Your task to perform on an android device: Add "dell xps" to the cart on walmart Image 0: 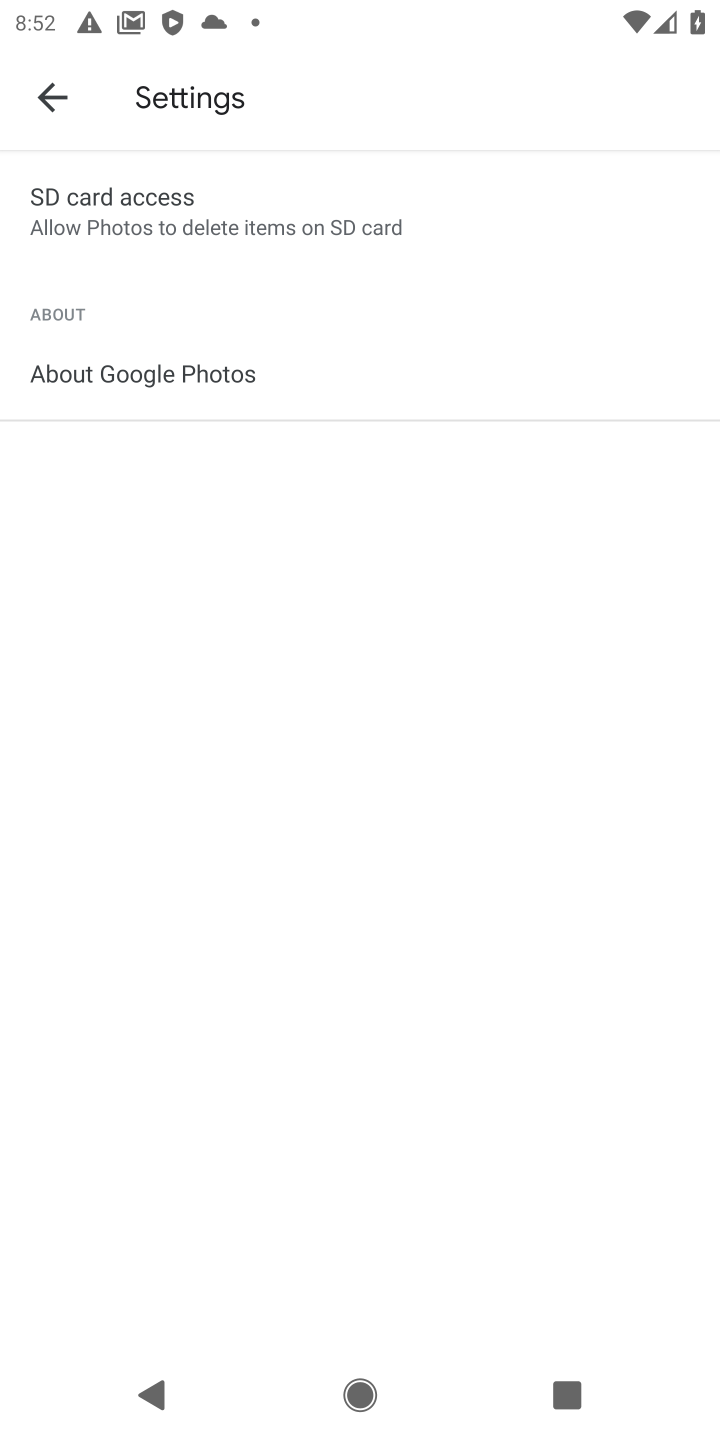
Step 0: press home button
Your task to perform on an android device: Add "dell xps" to the cart on walmart Image 1: 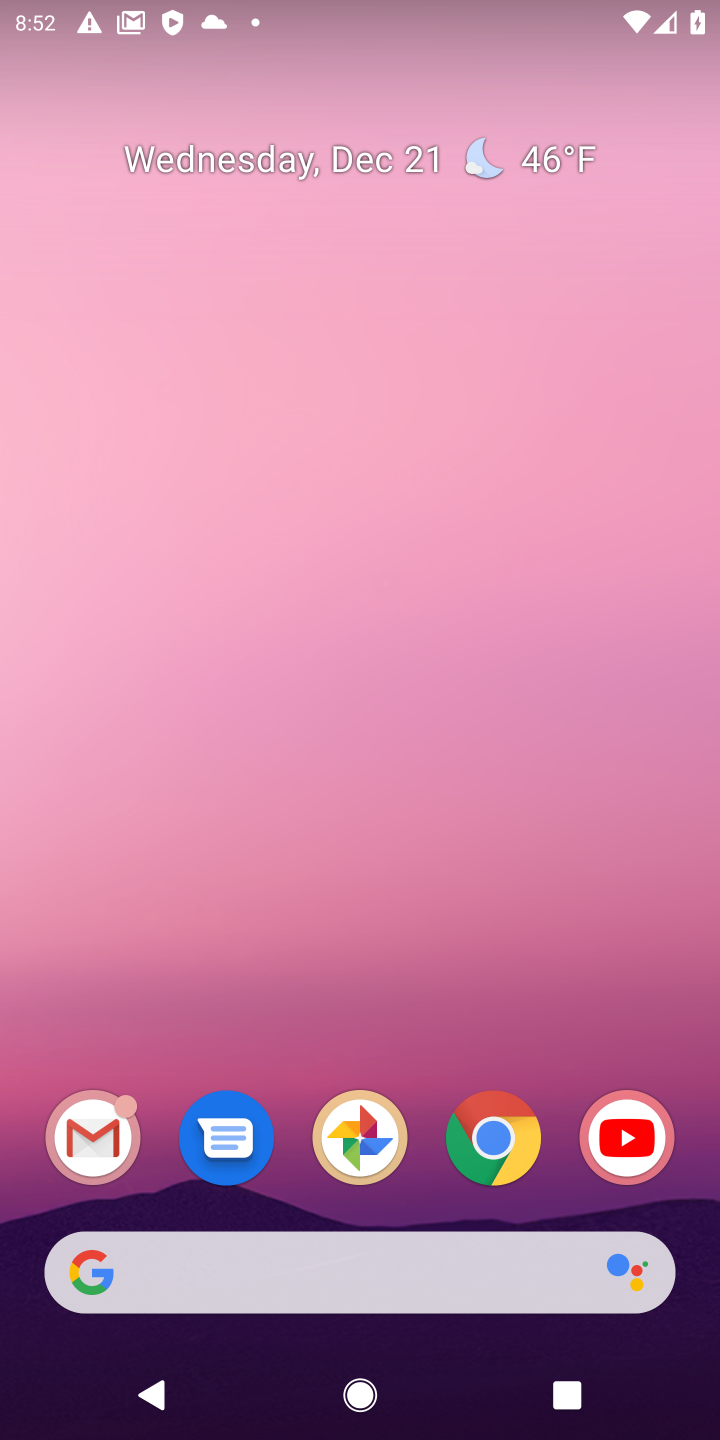
Step 1: click (503, 1151)
Your task to perform on an android device: Add "dell xps" to the cart on walmart Image 2: 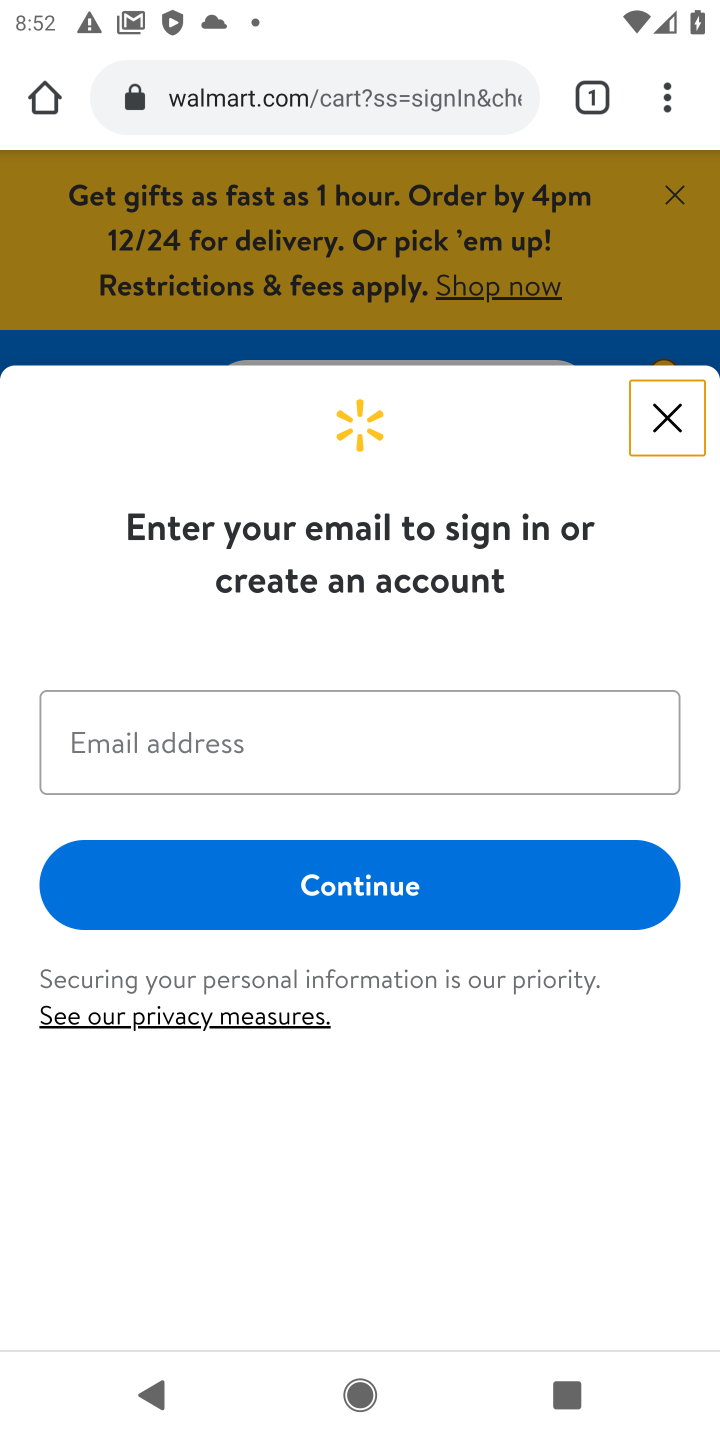
Step 2: click (663, 423)
Your task to perform on an android device: Add "dell xps" to the cart on walmart Image 3: 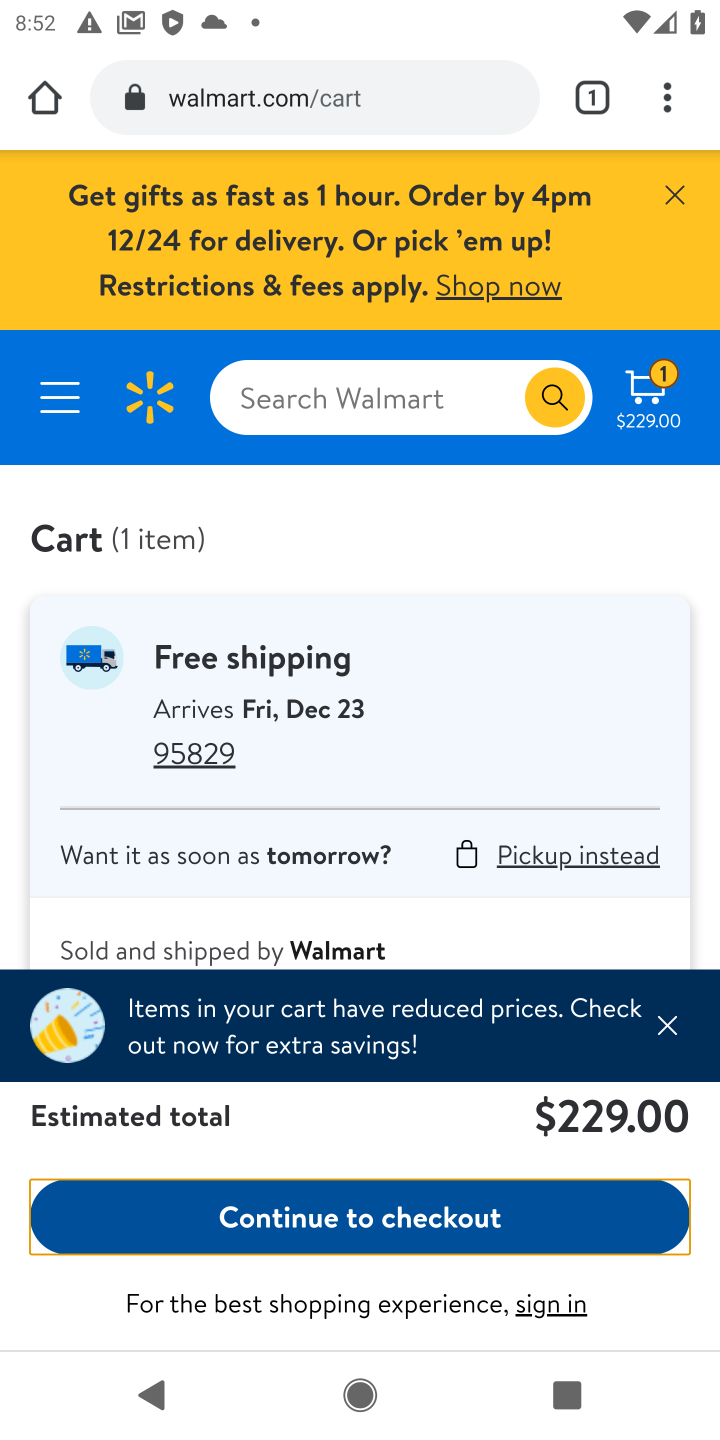
Step 3: click (296, 406)
Your task to perform on an android device: Add "dell xps" to the cart on walmart Image 4: 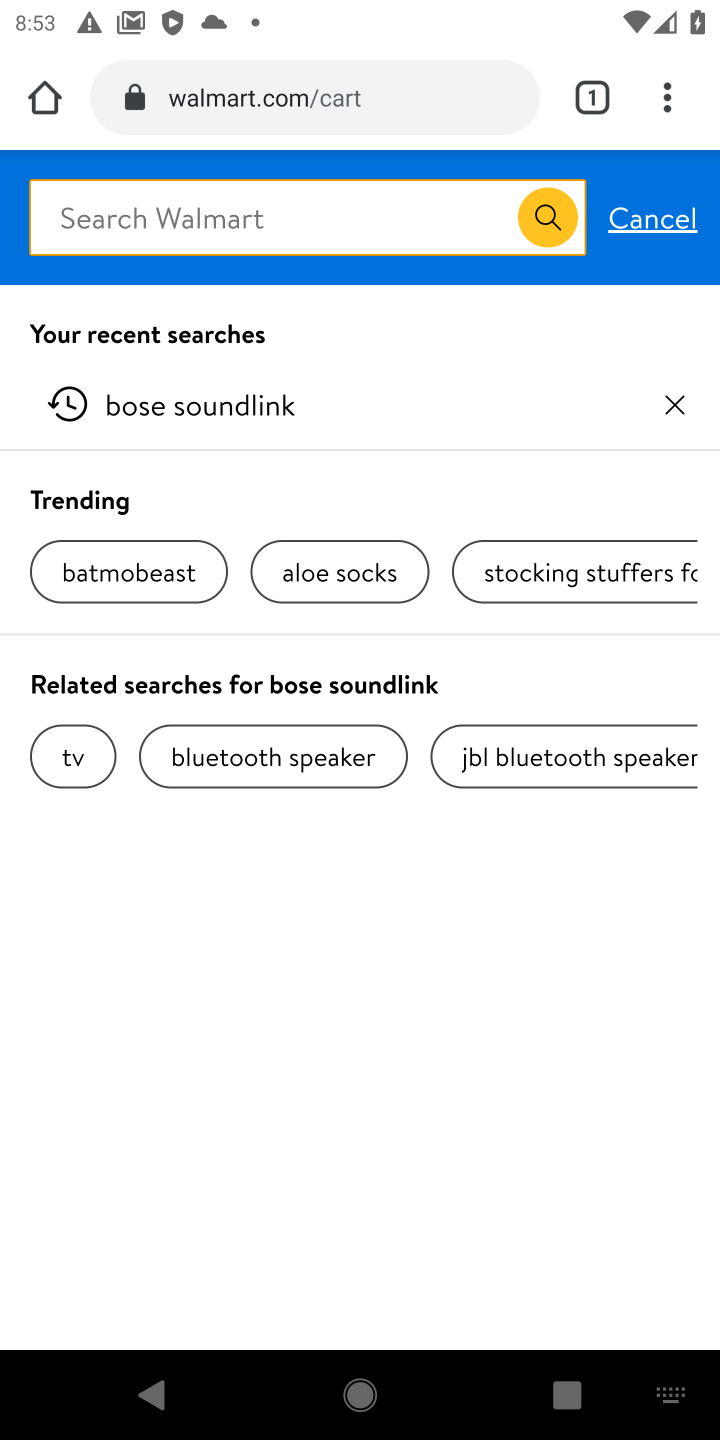
Step 4: type "dell xps"
Your task to perform on an android device: Add "dell xps" to the cart on walmart Image 5: 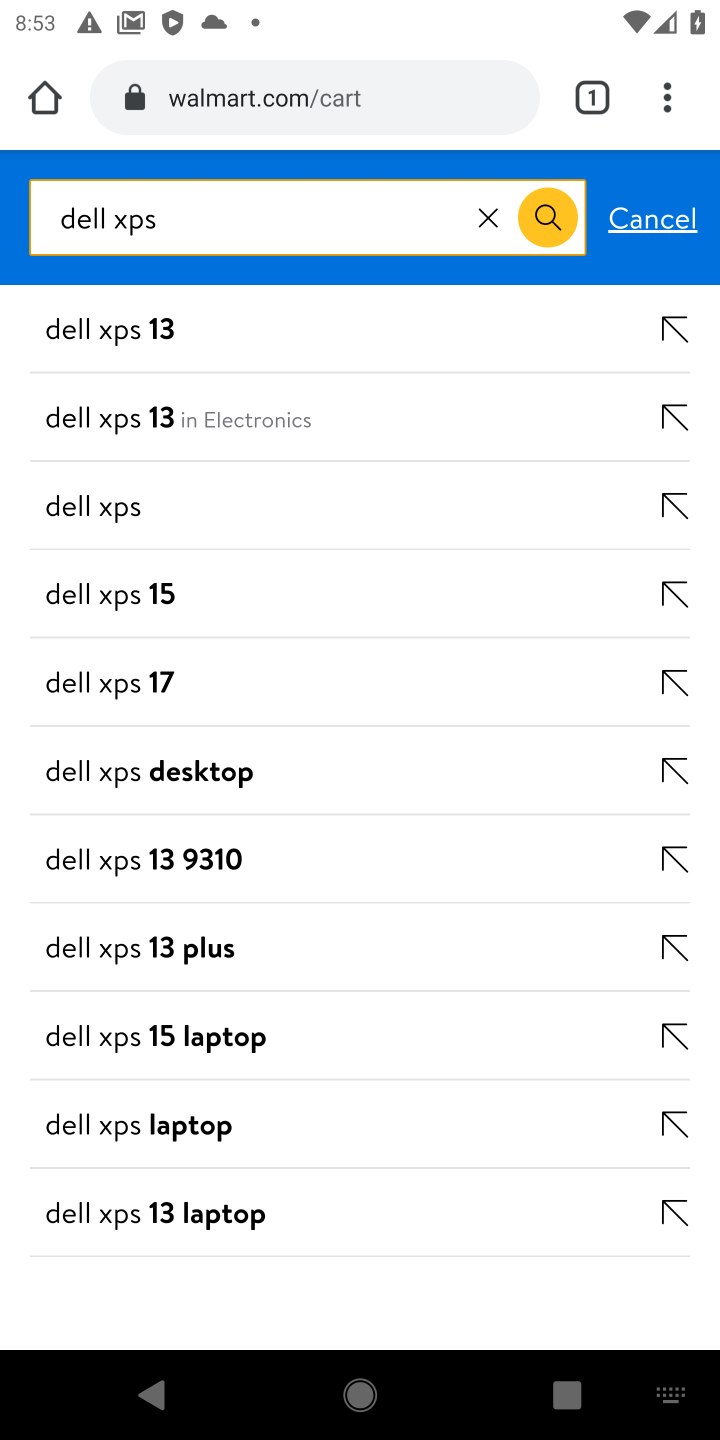
Step 5: click (273, 720)
Your task to perform on an android device: Add "dell xps" to the cart on walmart Image 6: 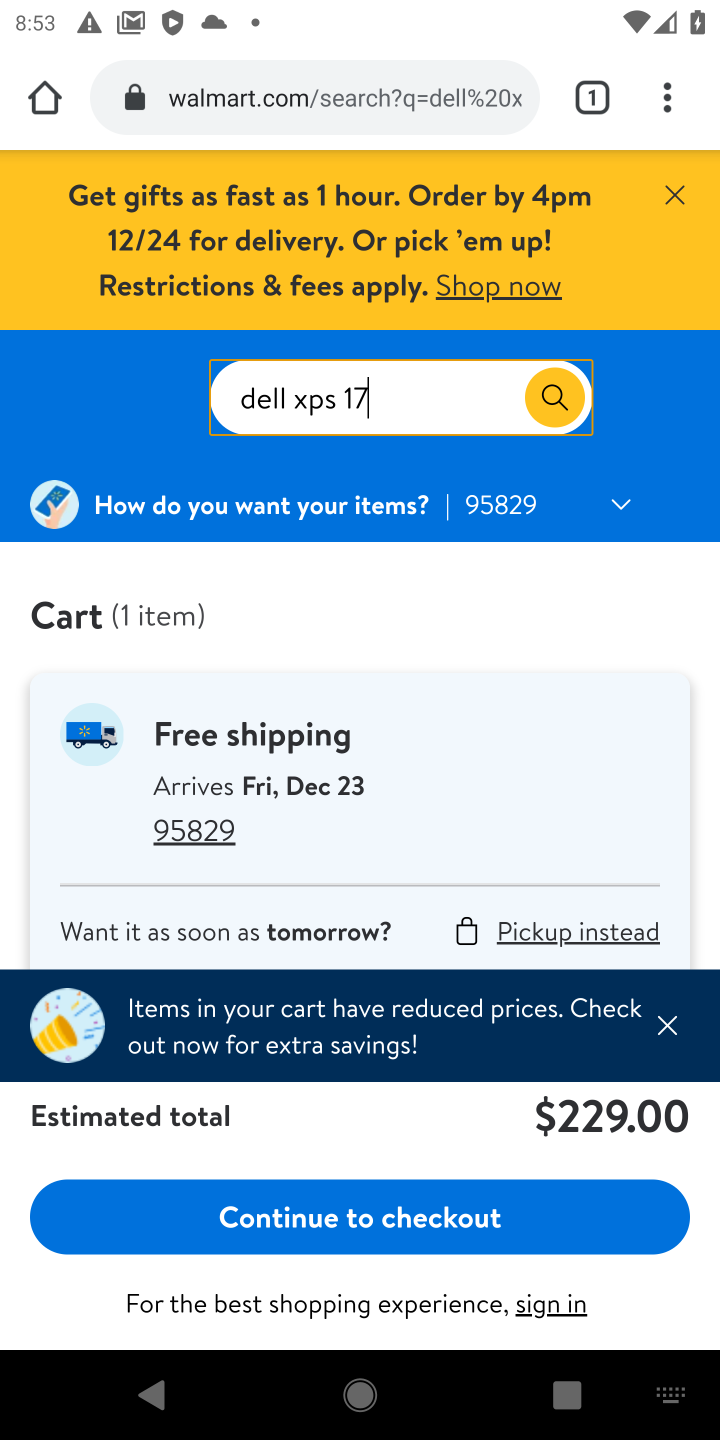
Step 6: click (97, 522)
Your task to perform on an android device: Add "dell xps" to the cart on walmart Image 7: 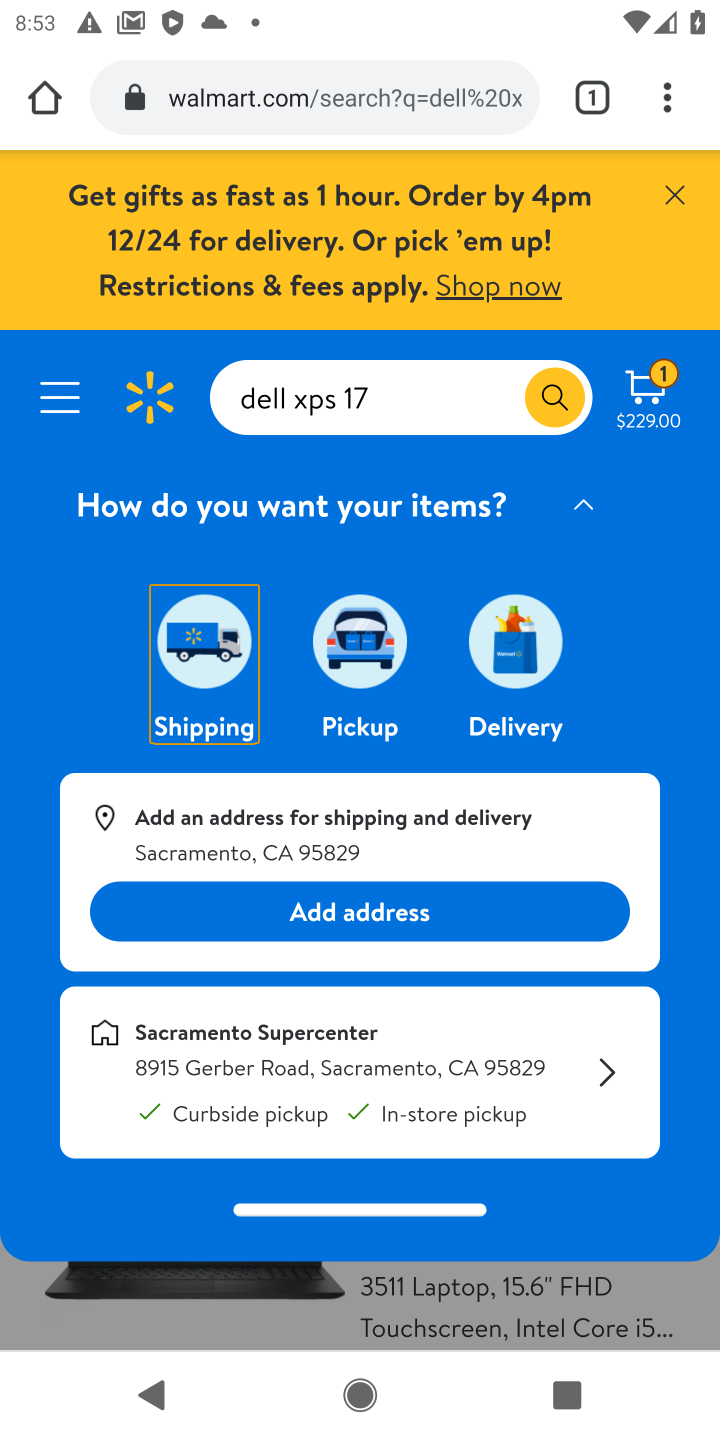
Step 7: click (560, 390)
Your task to perform on an android device: Add "dell xps" to the cart on walmart Image 8: 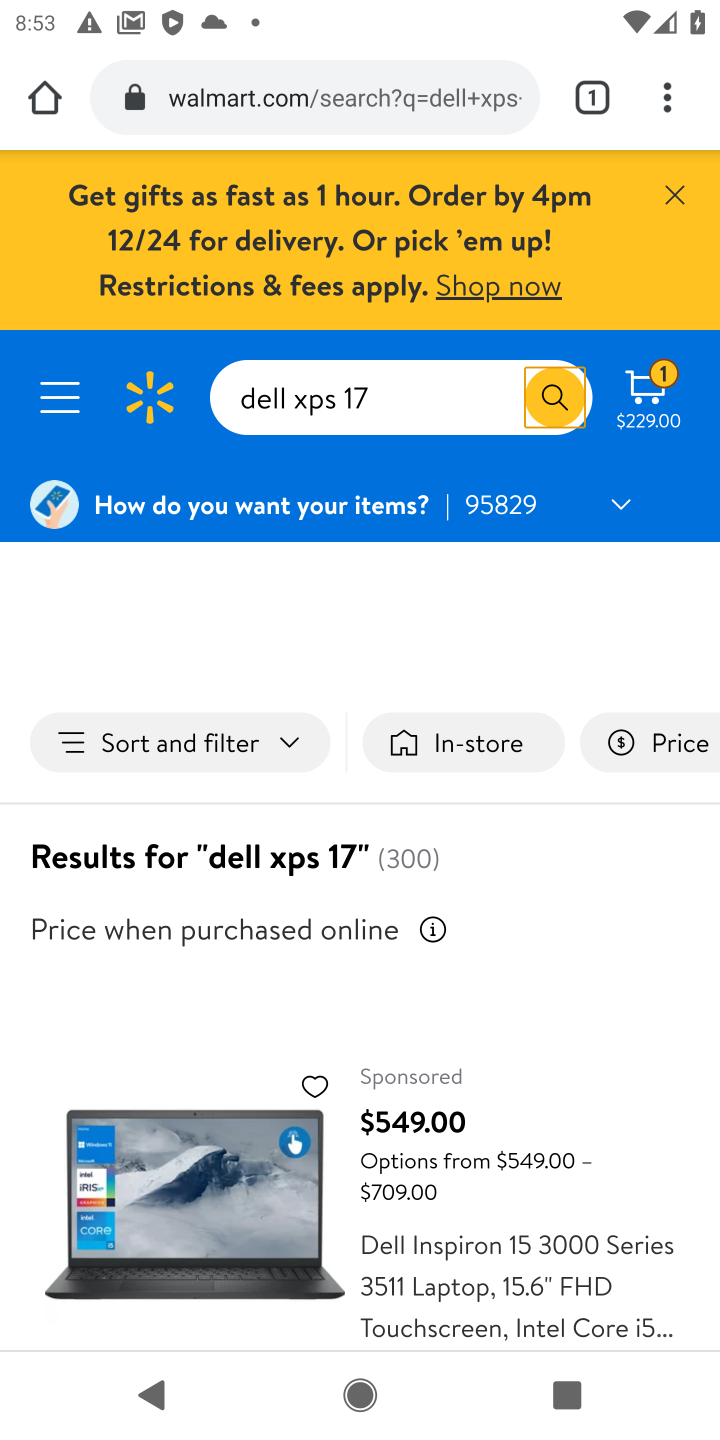
Step 8: drag from (341, 837) to (322, 340)
Your task to perform on an android device: Add "dell xps" to the cart on walmart Image 9: 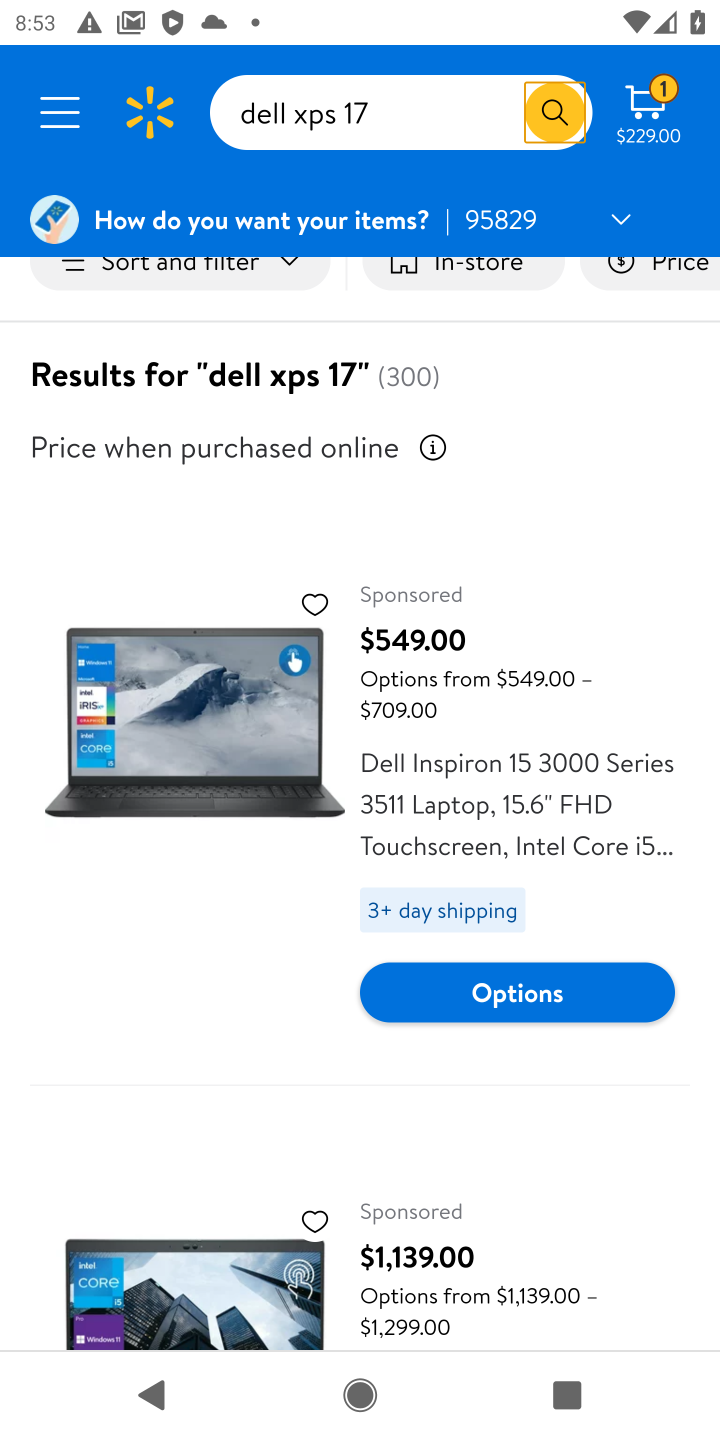
Step 9: drag from (279, 919) to (304, 275)
Your task to perform on an android device: Add "dell xps" to the cart on walmart Image 10: 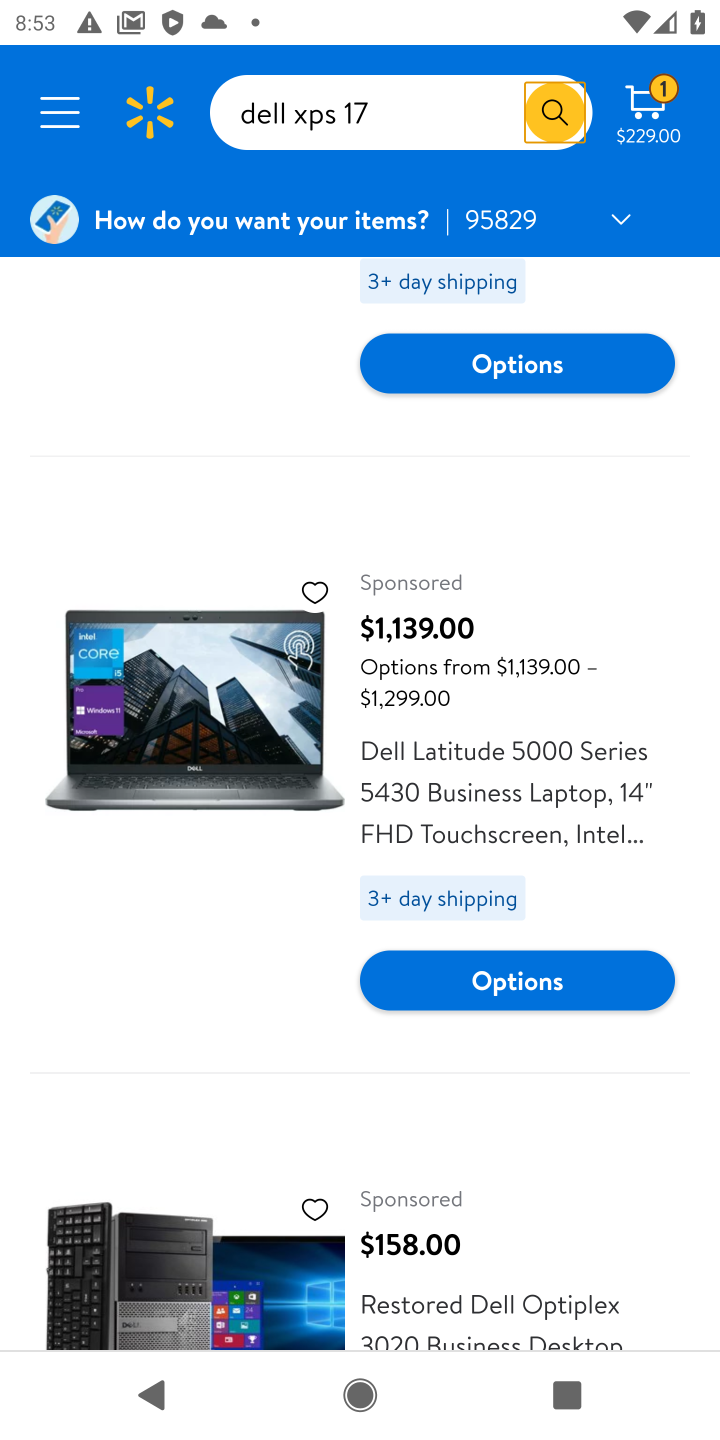
Step 10: drag from (264, 783) to (252, 519)
Your task to perform on an android device: Add "dell xps" to the cart on walmart Image 11: 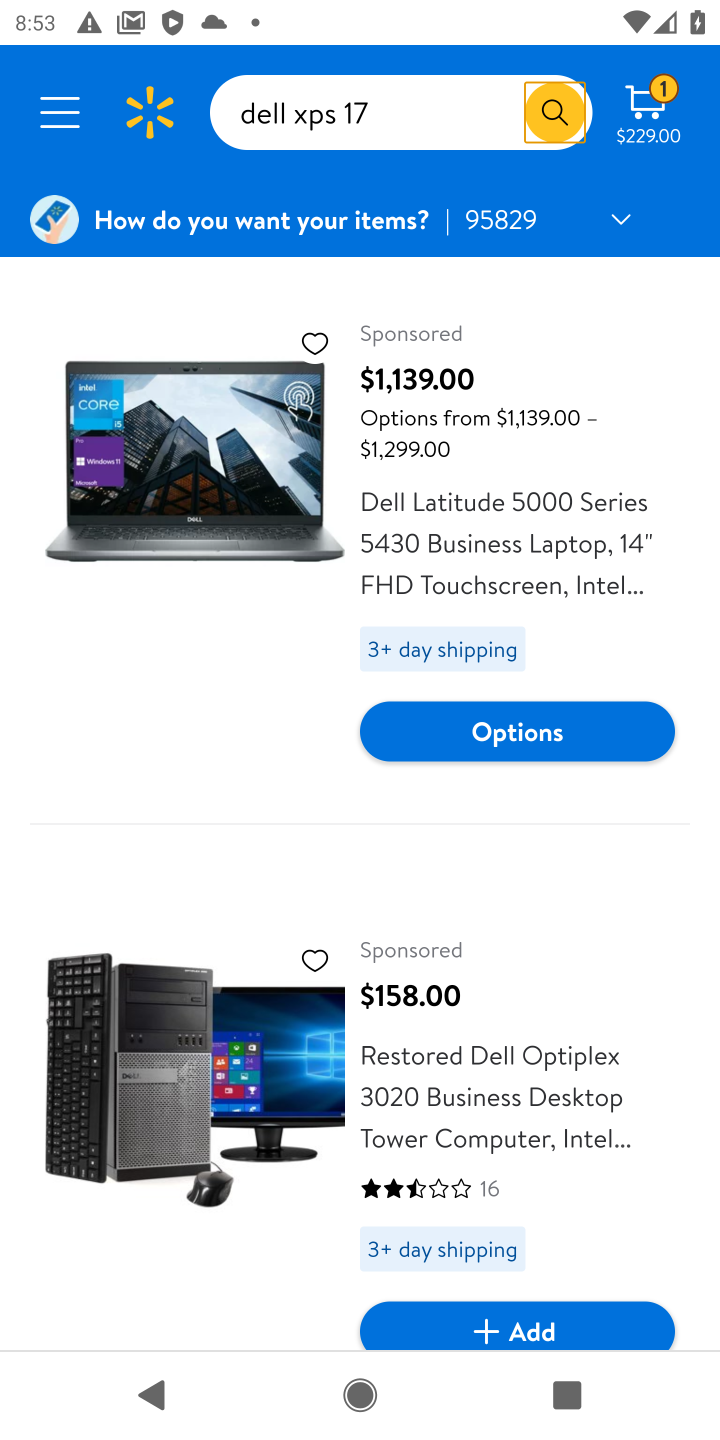
Step 11: drag from (228, 1052) to (251, 491)
Your task to perform on an android device: Add "dell xps" to the cart on walmart Image 12: 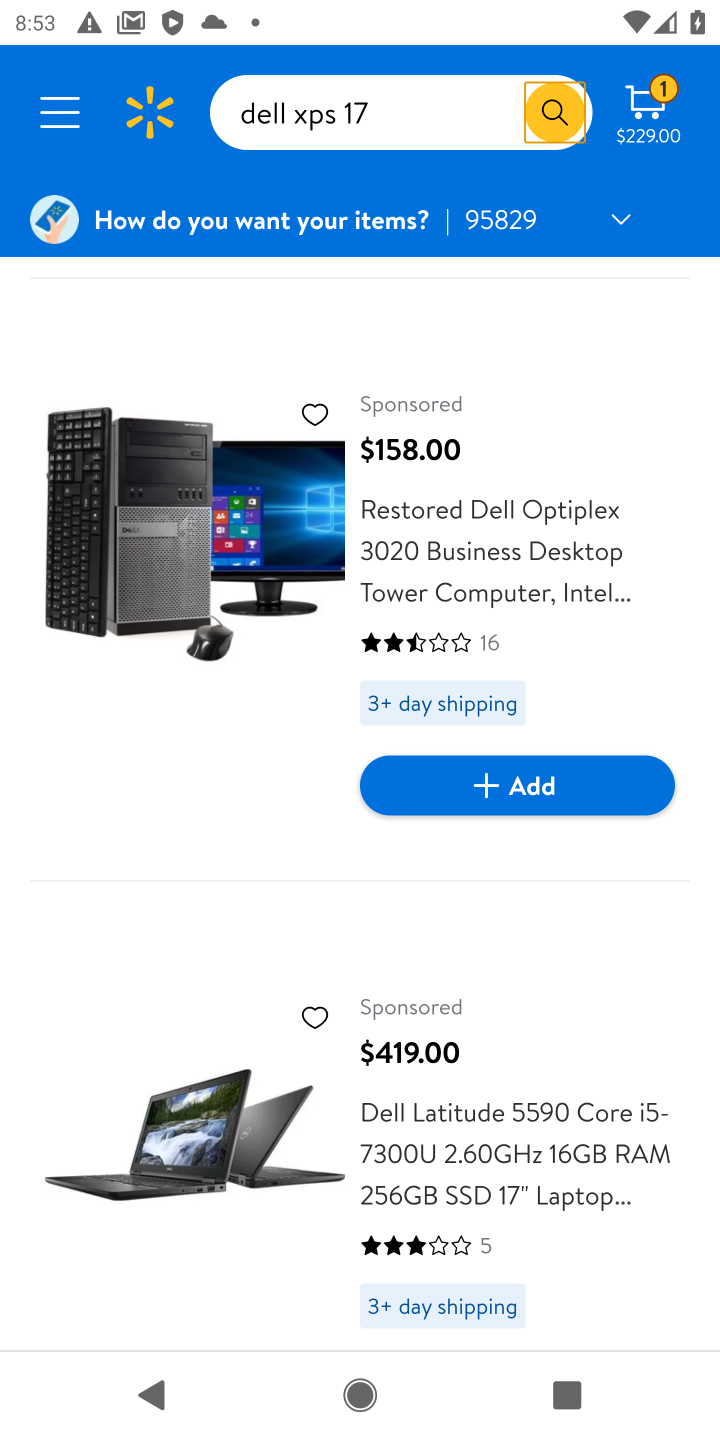
Step 12: drag from (306, 1017) to (267, 418)
Your task to perform on an android device: Add "dell xps" to the cart on walmart Image 13: 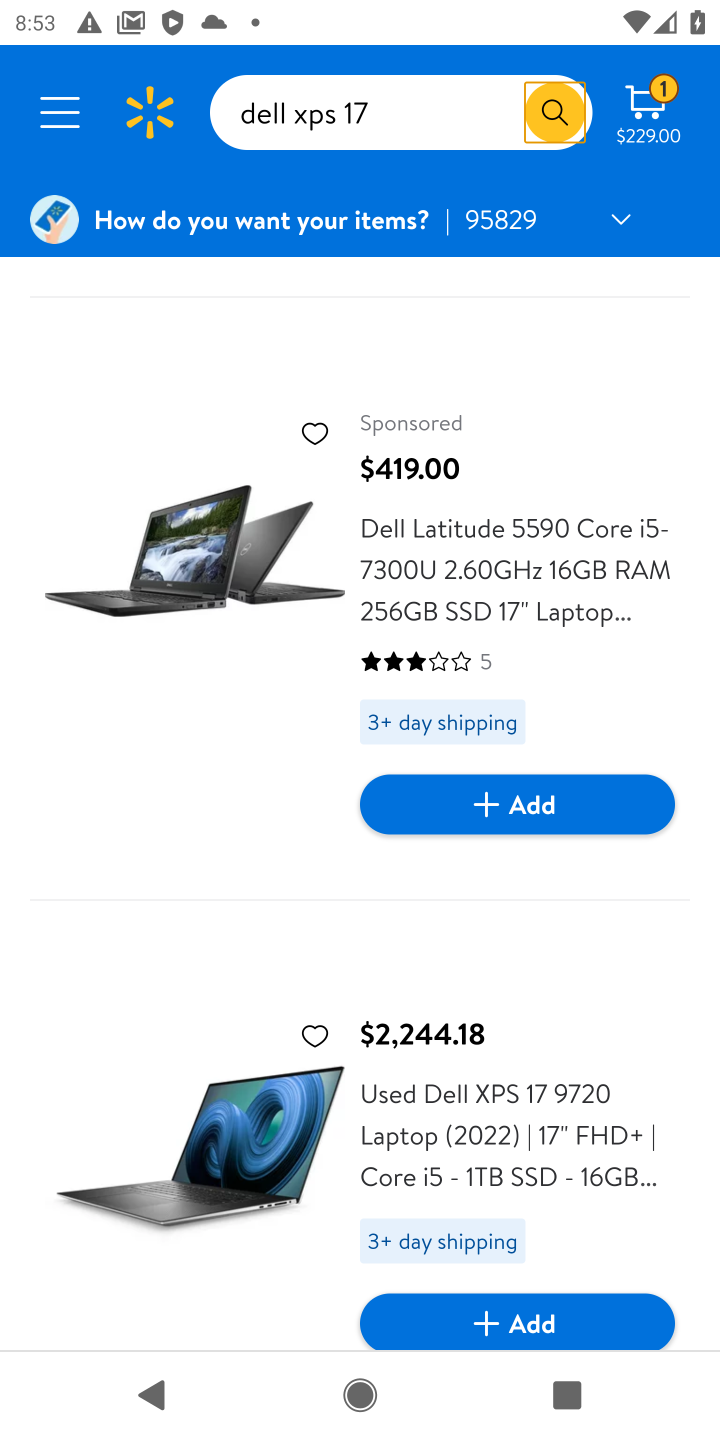
Step 13: drag from (263, 982) to (267, 572)
Your task to perform on an android device: Add "dell xps" to the cart on walmart Image 14: 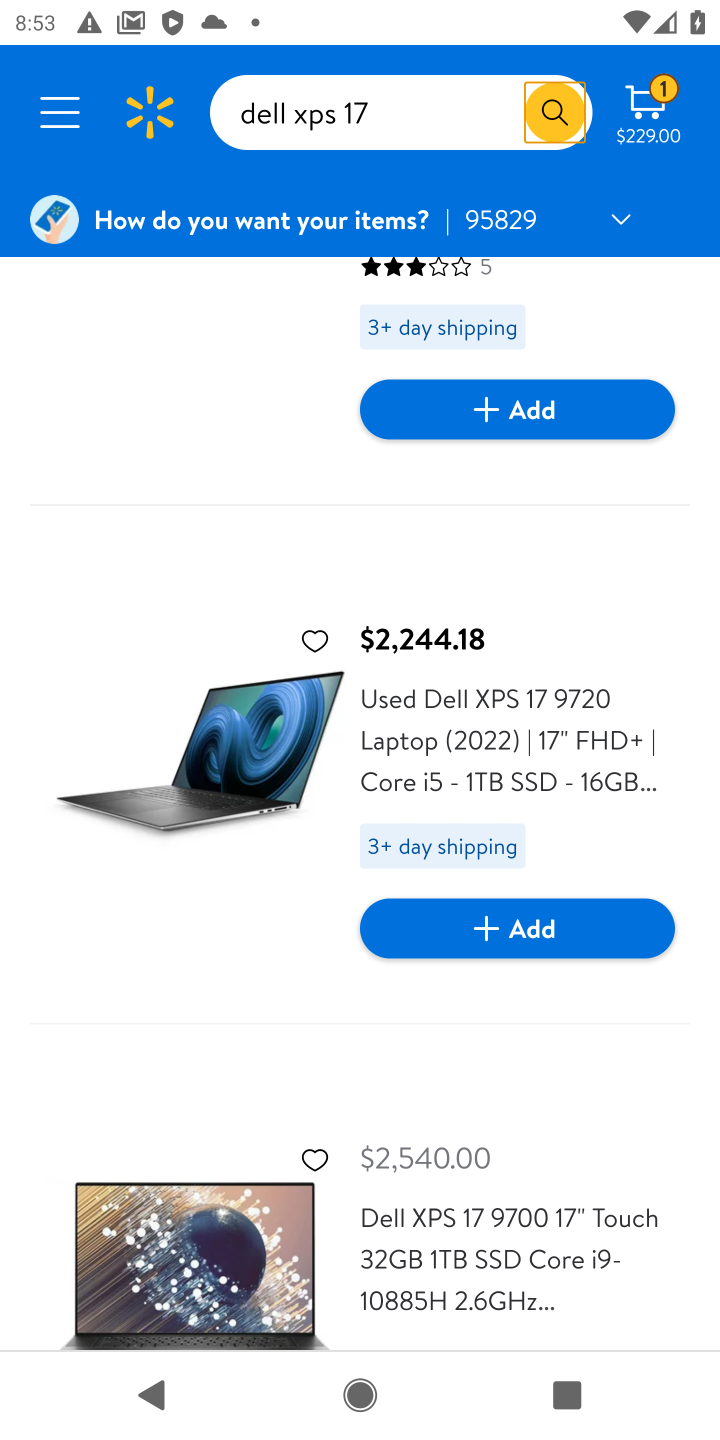
Step 14: click (515, 935)
Your task to perform on an android device: Add "dell xps" to the cart on walmart Image 15: 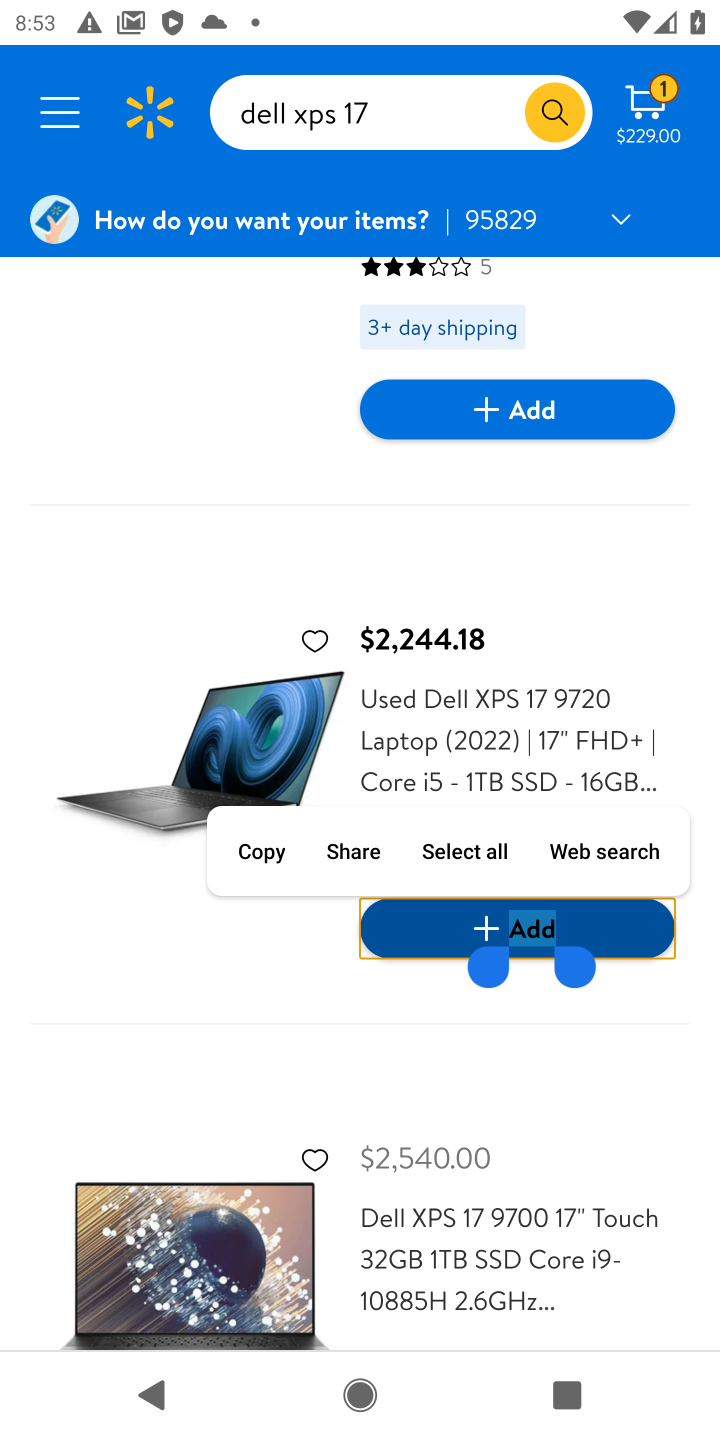
Step 15: click (515, 935)
Your task to perform on an android device: Add "dell xps" to the cart on walmart Image 16: 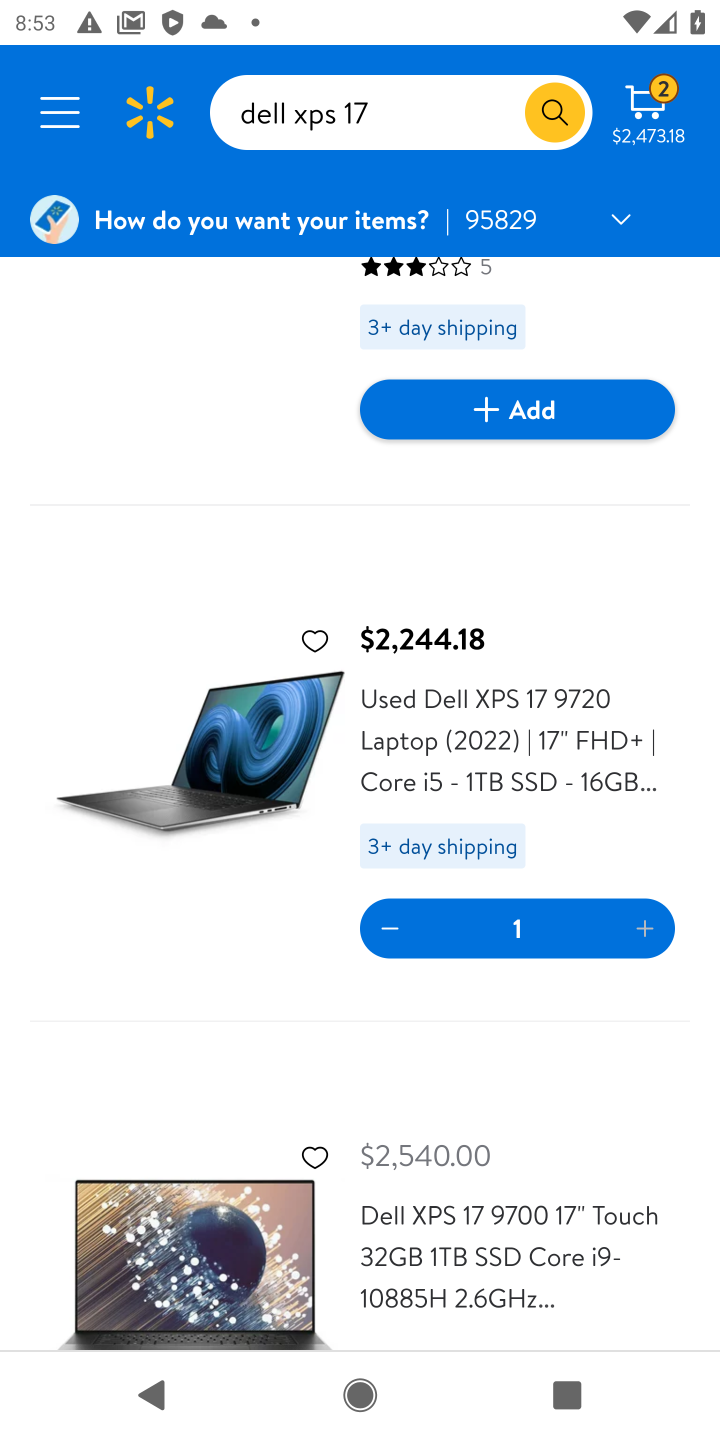
Step 16: task complete